Your task to perform on an android device: Open display settings Image 0: 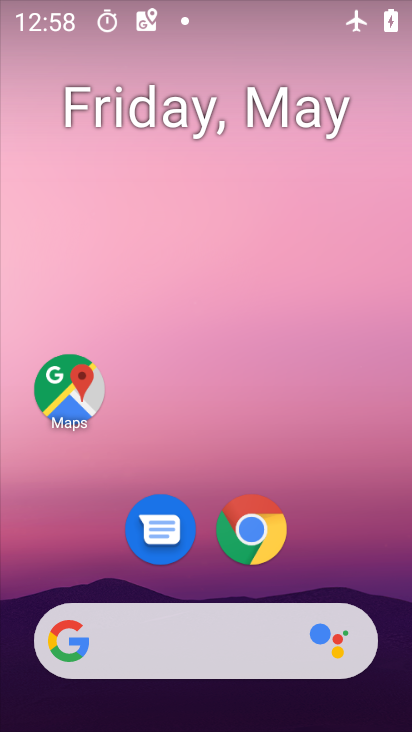
Step 0: drag from (204, 505) to (243, 177)
Your task to perform on an android device: Open display settings Image 1: 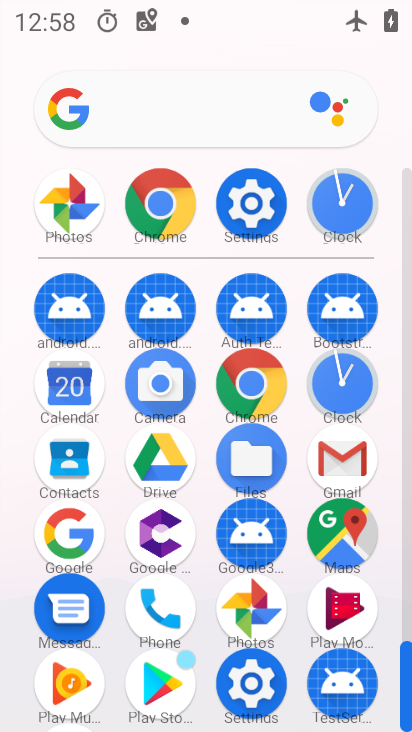
Step 1: click (254, 223)
Your task to perform on an android device: Open display settings Image 2: 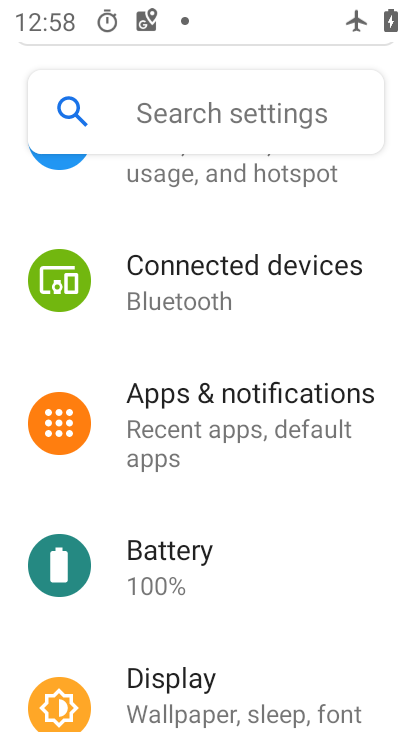
Step 2: drag from (180, 526) to (224, 236)
Your task to perform on an android device: Open display settings Image 3: 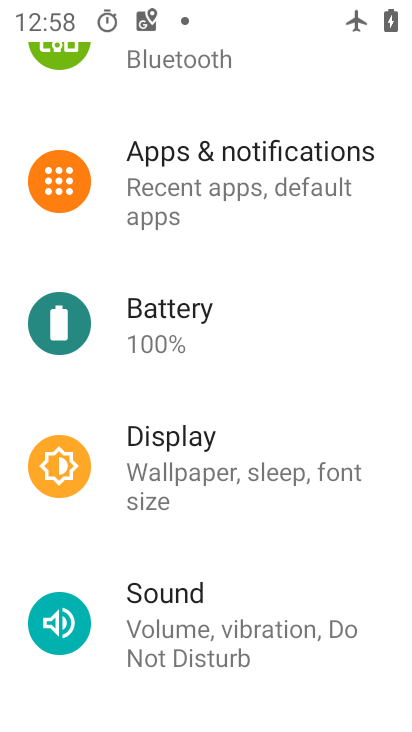
Step 3: click (204, 500)
Your task to perform on an android device: Open display settings Image 4: 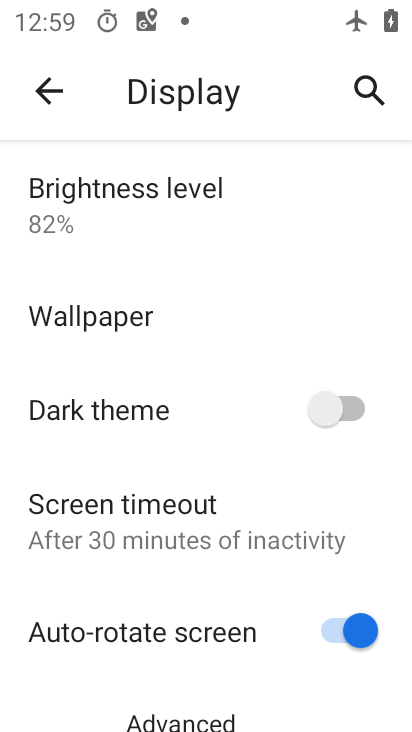
Step 4: task complete